Your task to perform on an android device: Show me productivity apps on the Play Store Image 0: 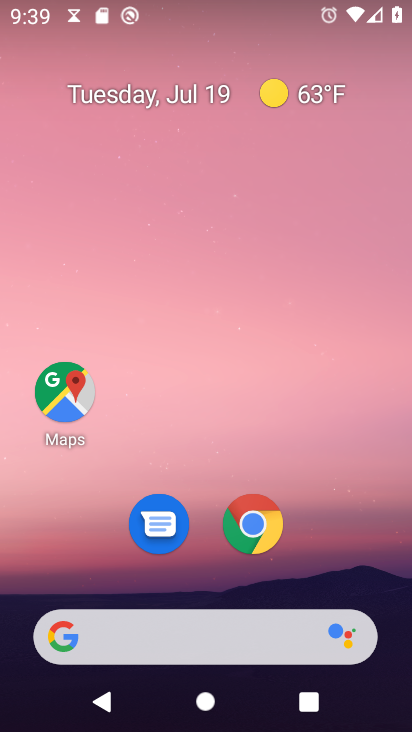
Step 0: drag from (195, 635) to (318, 83)
Your task to perform on an android device: Show me productivity apps on the Play Store Image 1: 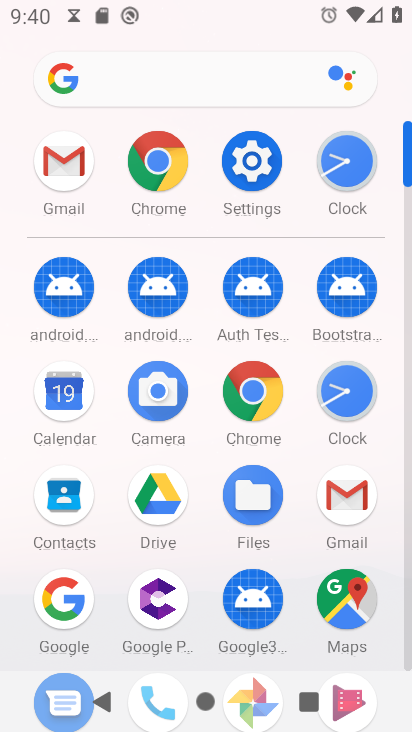
Step 1: drag from (198, 629) to (271, 199)
Your task to perform on an android device: Show me productivity apps on the Play Store Image 2: 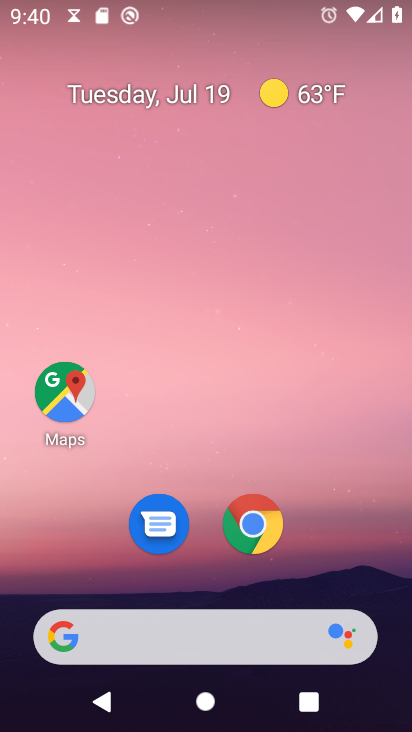
Step 2: drag from (181, 627) to (333, 114)
Your task to perform on an android device: Show me productivity apps on the Play Store Image 3: 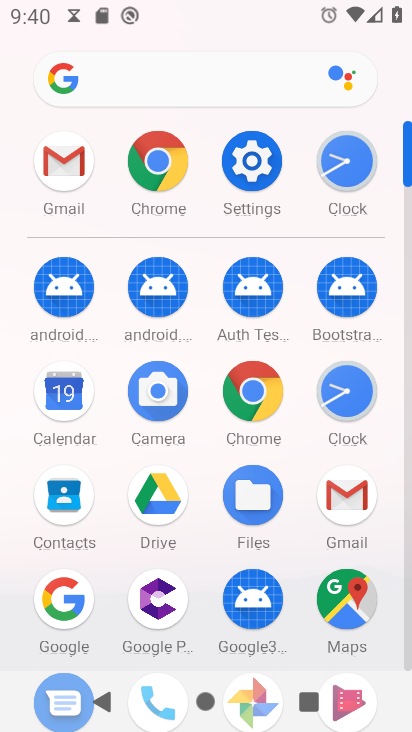
Step 3: drag from (207, 479) to (316, 116)
Your task to perform on an android device: Show me productivity apps on the Play Store Image 4: 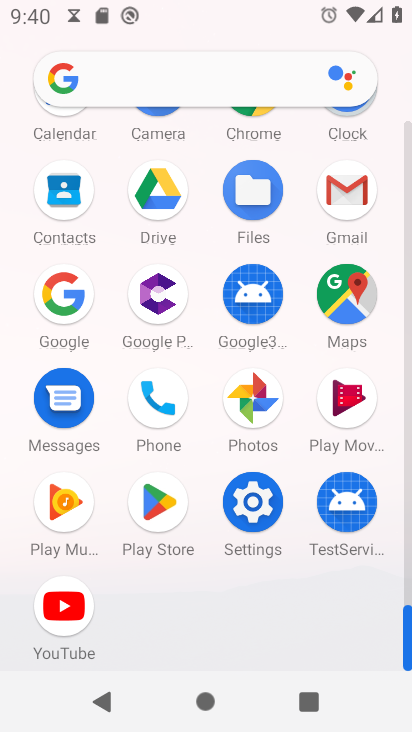
Step 4: click (163, 507)
Your task to perform on an android device: Show me productivity apps on the Play Store Image 5: 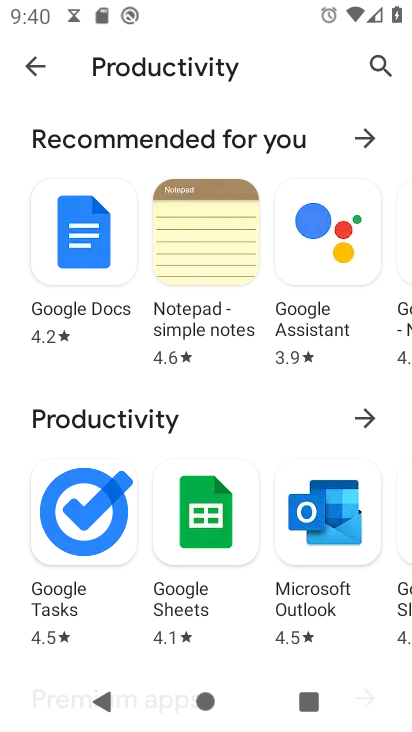
Step 5: task complete